Your task to perform on an android device: all mails in gmail Image 0: 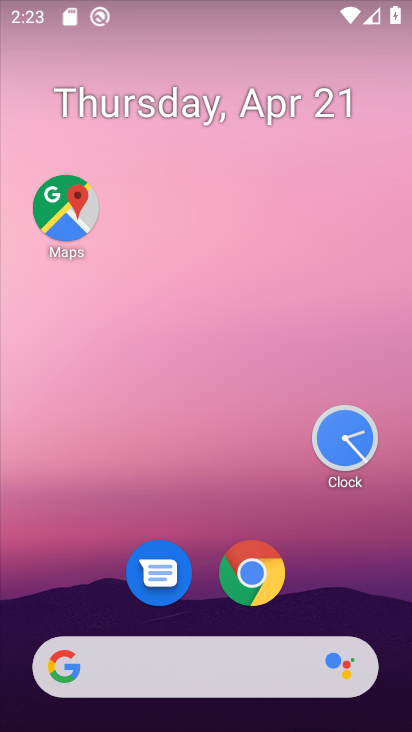
Step 0: drag from (212, 501) to (206, 201)
Your task to perform on an android device: all mails in gmail Image 1: 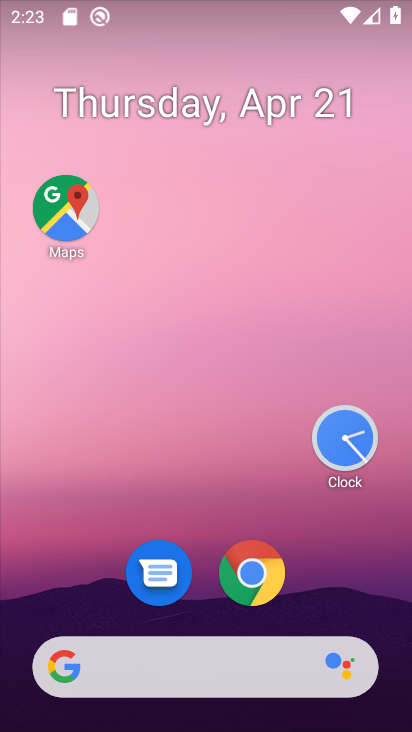
Step 1: drag from (214, 461) to (229, 183)
Your task to perform on an android device: all mails in gmail Image 2: 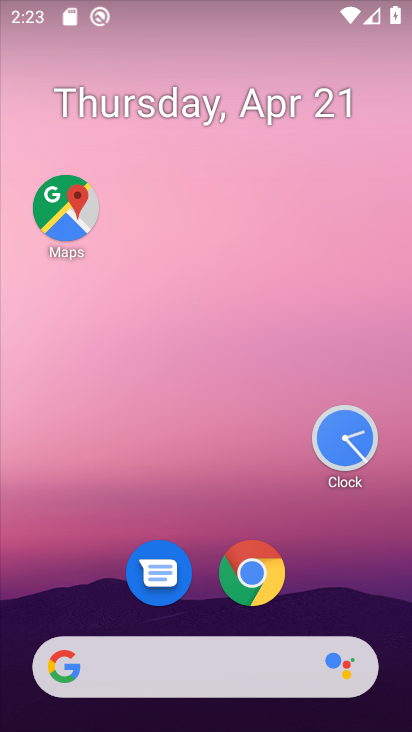
Step 2: drag from (228, 282) to (237, 86)
Your task to perform on an android device: all mails in gmail Image 3: 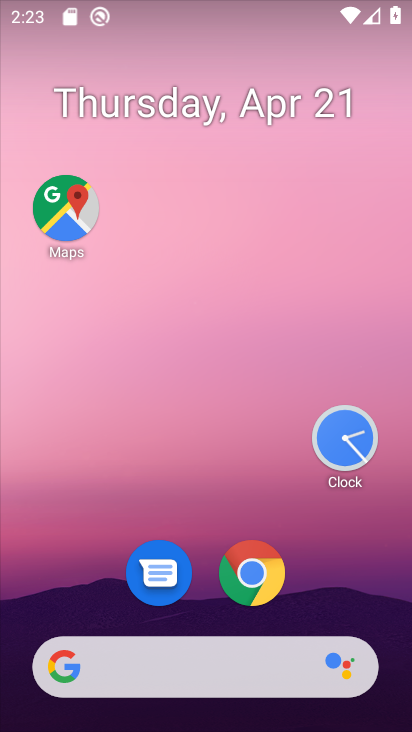
Step 3: drag from (215, 538) to (182, 93)
Your task to perform on an android device: all mails in gmail Image 4: 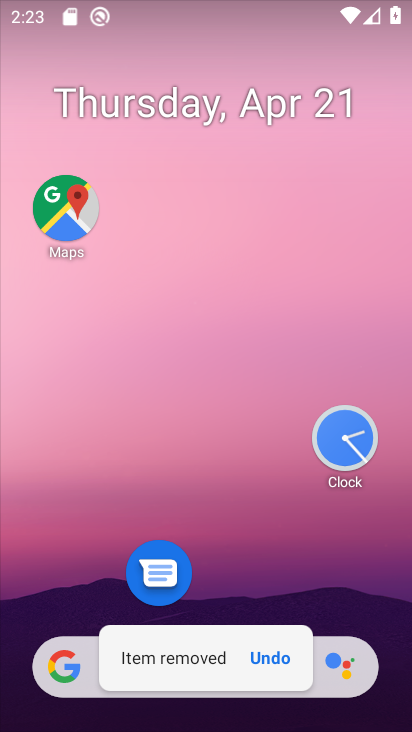
Step 4: drag from (238, 495) to (239, 152)
Your task to perform on an android device: all mails in gmail Image 5: 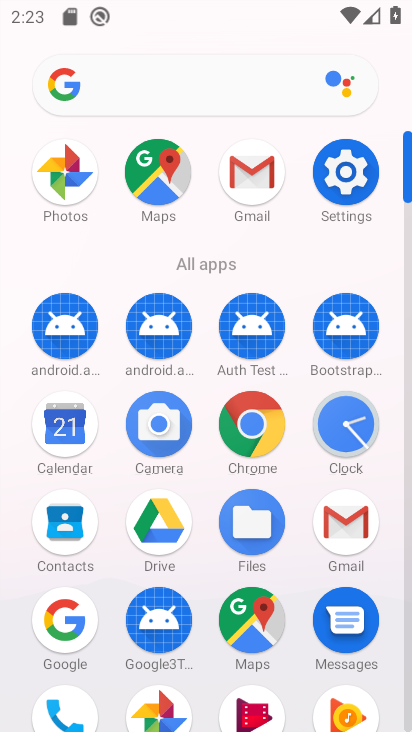
Step 5: click (270, 201)
Your task to perform on an android device: all mails in gmail Image 6: 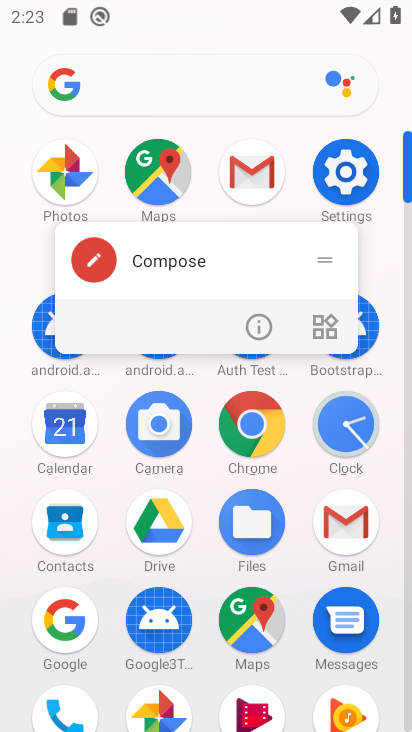
Step 6: click (254, 324)
Your task to perform on an android device: all mails in gmail Image 7: 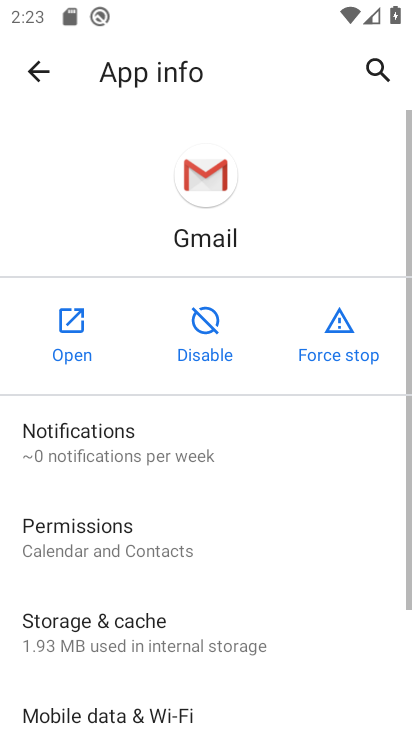
Step 7: click (82, 342)
Your task to perform on an android device: all mails in gmail Image 8: 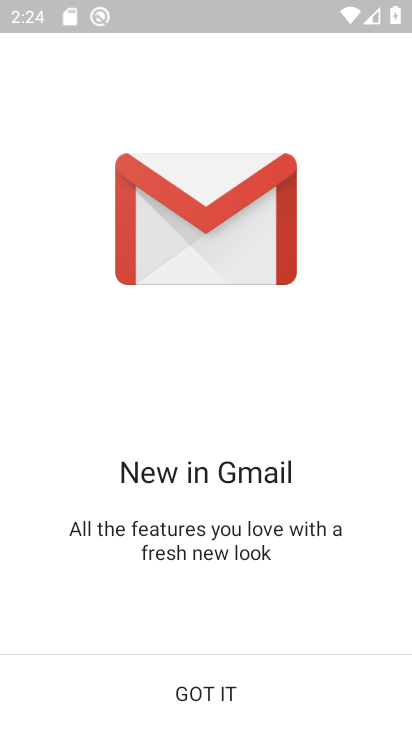
Step 8: click (218, 690)
Your task to perform on an android device: all mails in gmail Image 9: 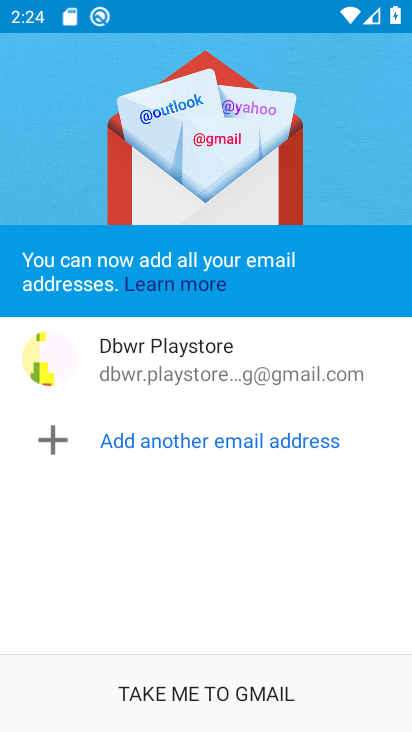
Step 9: click (218, 689)
Your task to perform on an android device: all mails in gmail Image 10: 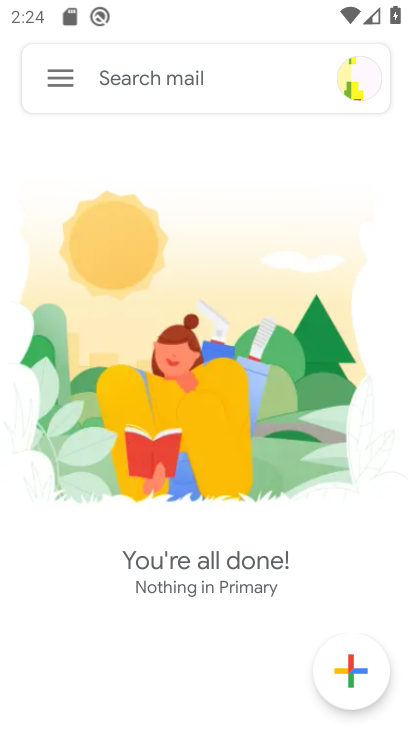
Step 10: click (72, 80)
Your task to perform on an android device: all mails in gmail Image 11: 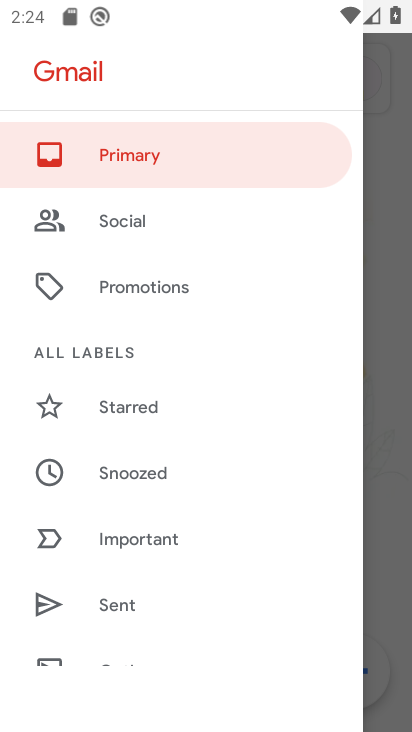
Step 11: drag from (157, 576) to (206, 222)
Your task to perform on an android device: all mails in gmail Image 12: 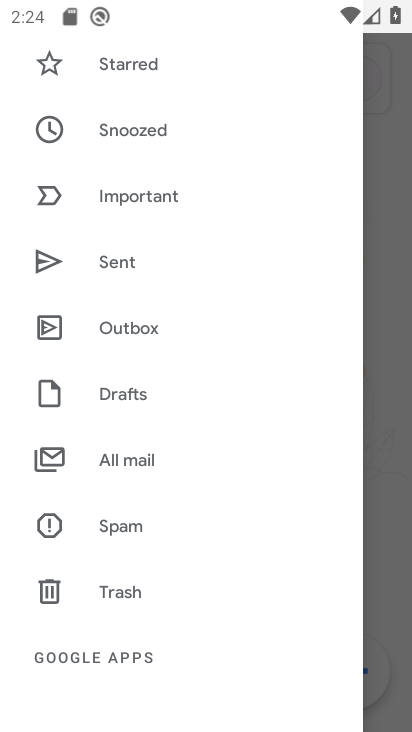
Step 12: click (168, 470)
Your task to perform on an android device: all mails in gmail Image 13: 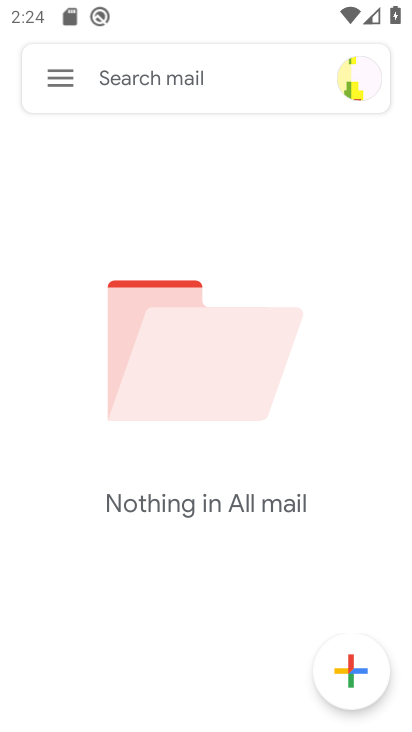
Step 13: task complete